Your task to perform on an android device: turn on bluetooth scan Image 0: 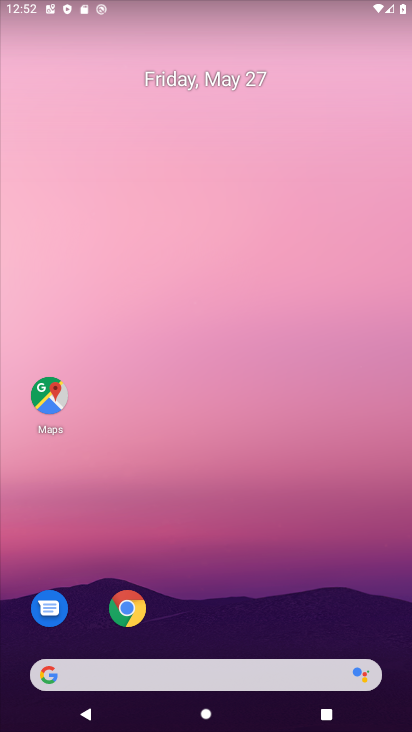
Step 0: drag from (201, 650) to (243, 125)
Your task to perform on an android device: turn on bluetooth scan Image 1: 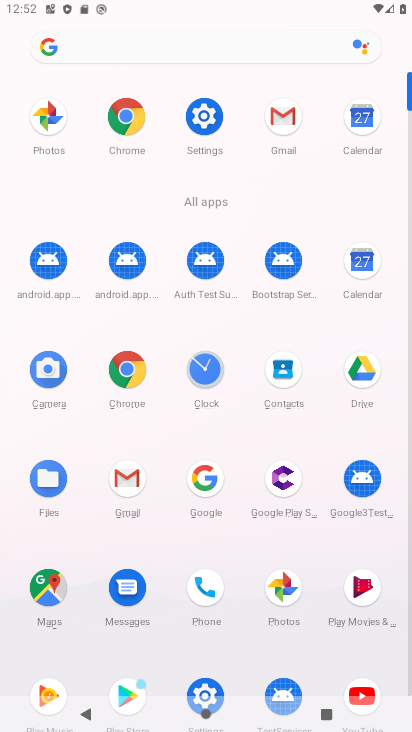
Step 1: click (204, 126)
Your task to perform on an android device: turn on bluetooth scan Image 2: 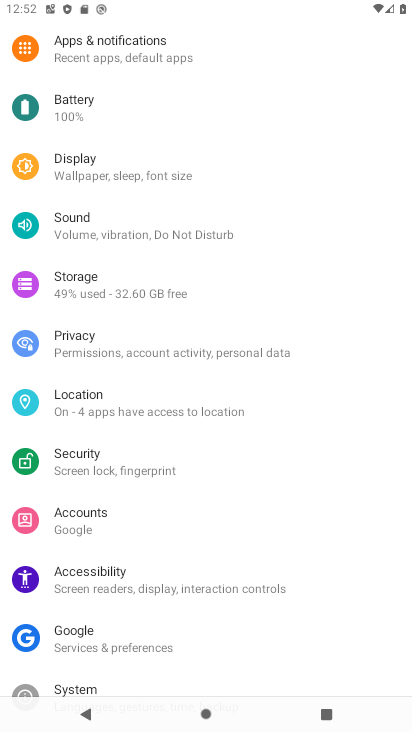
Step 2: drag from (166, 107) to (159, 488)
Your task to perform on an android device: turn on bluetooth scan Image 3: 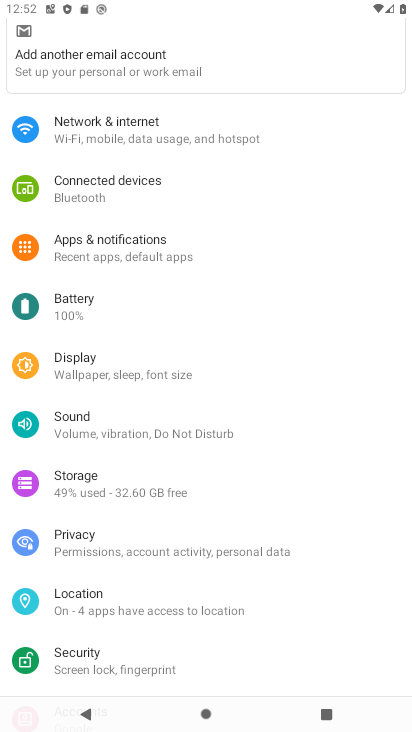
Step 3: click (105, 180)
Your task to perform on an android device: turn on bluetooth scan Image 4: 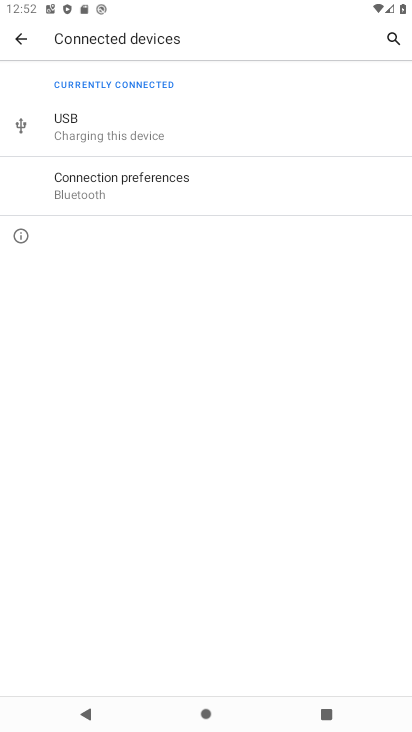
Step 4: click (98, 185)
Your task to perform on an android device: turn on bluetooth scan Image 5: 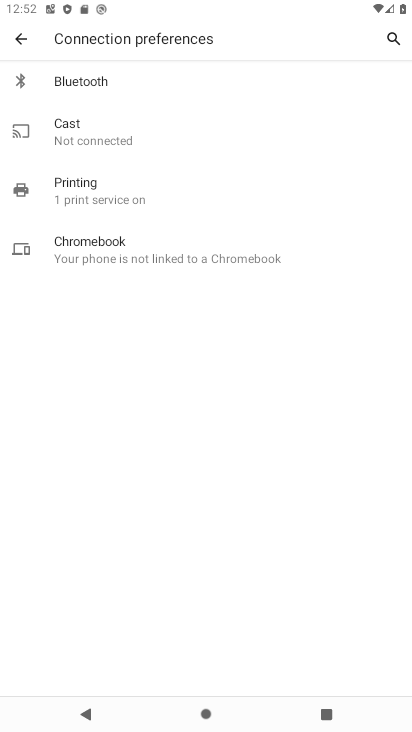
Step 5: click (60, 82)
Your task to perform on an android device: turn on bluetooth scan Image 6: 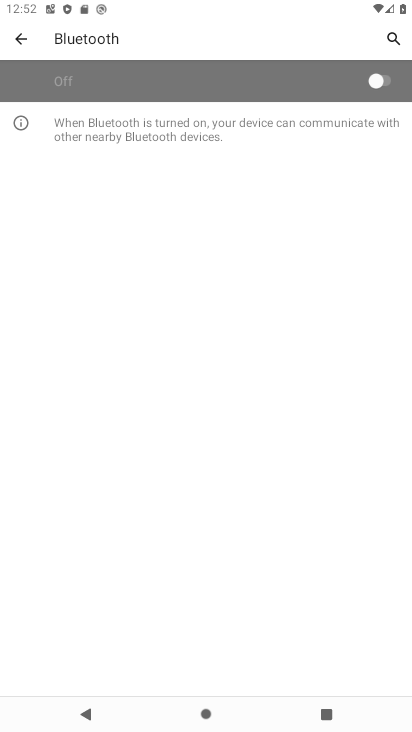
Step 6: task complete